Your task to perform on an android device: Go to settings Image 0: 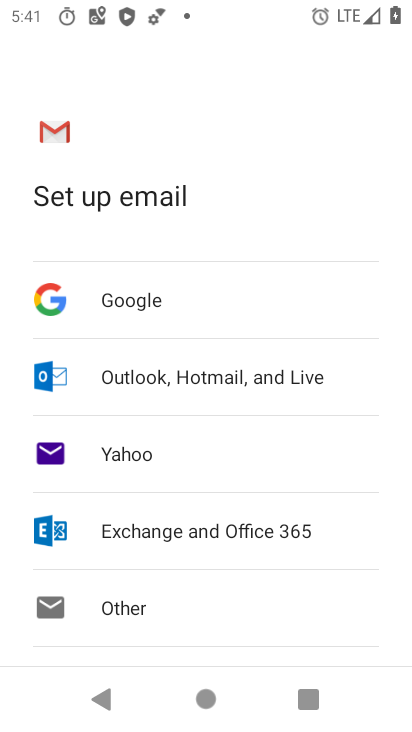
Step 0: press home button
Your task to perform on an android device: Go to settings Image 1: 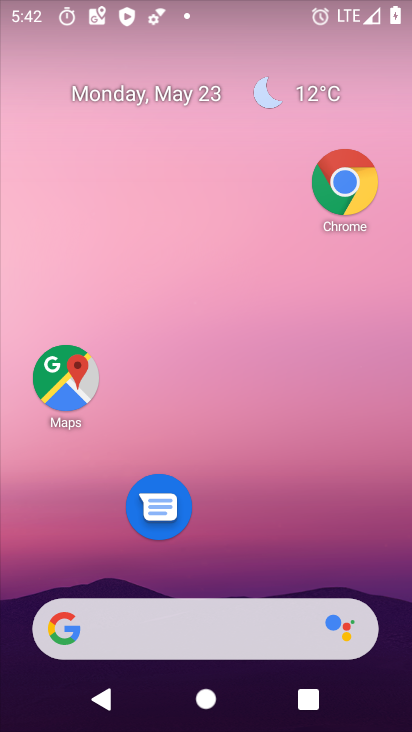
Step 1: drag from (224, 548) to (231, 256)
Your task to perform on an android device: Go to settings Image 2: 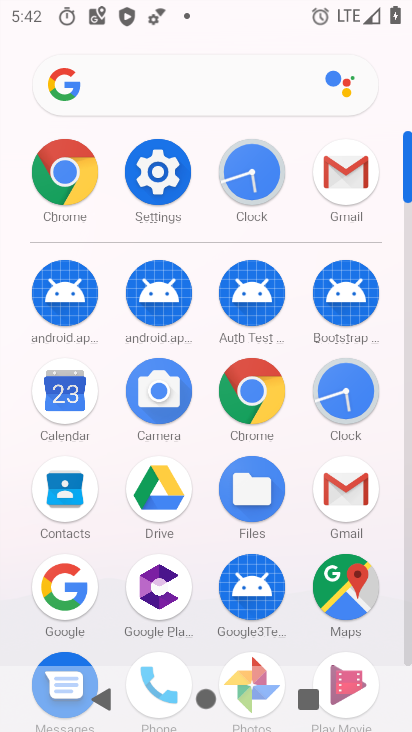
Step 2: click (167, 166)
Your task to perform on an android device: Go to settings Image 3: 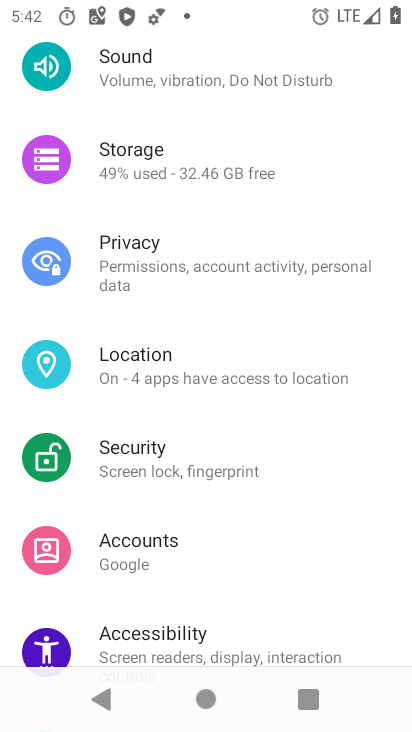
Step 3: task complete